Your task to perform on an android device: check google app version Image 0: 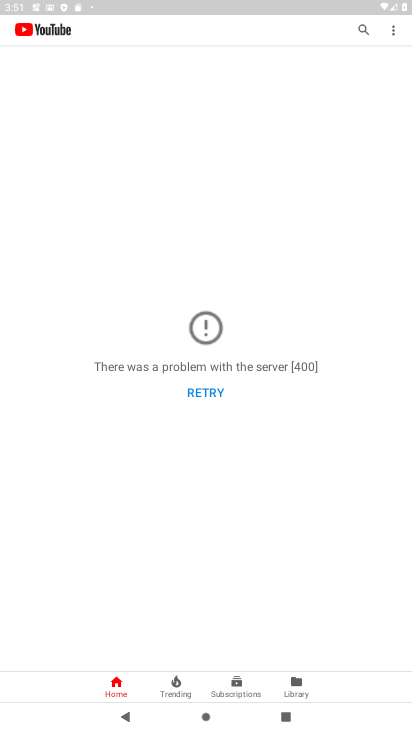
Step 0: press home button
Your task to perform on an android device: check google app version Image 1: 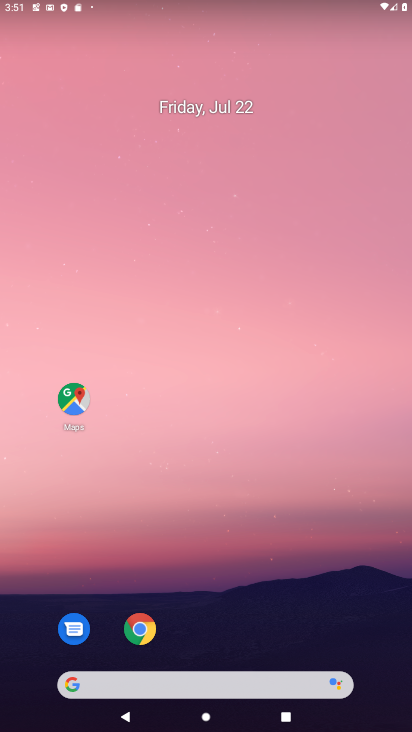
Step 1: drag from (309, 614) to (235, 173)
Your task to perform on an android device: check google app version Image 2: 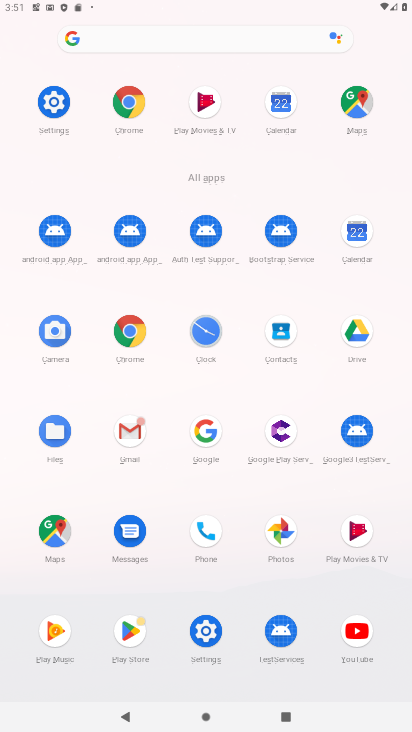
Step 2: click (209, 425)
Your task to perform on an android device: check google app version Image 3: 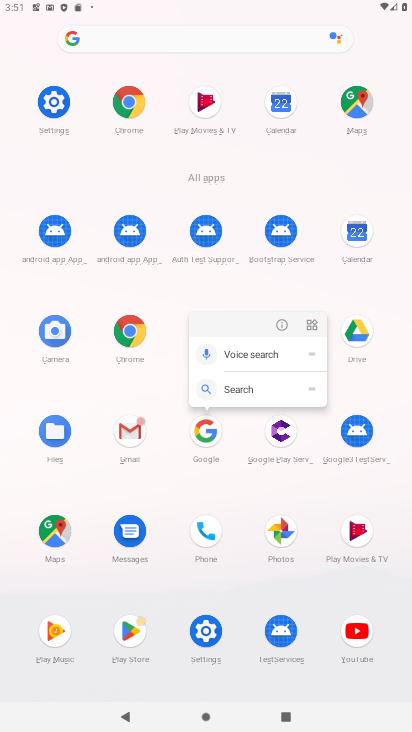
Step 3: click (275, 323)
Your task to perform on an android device: check google app version Image 4: 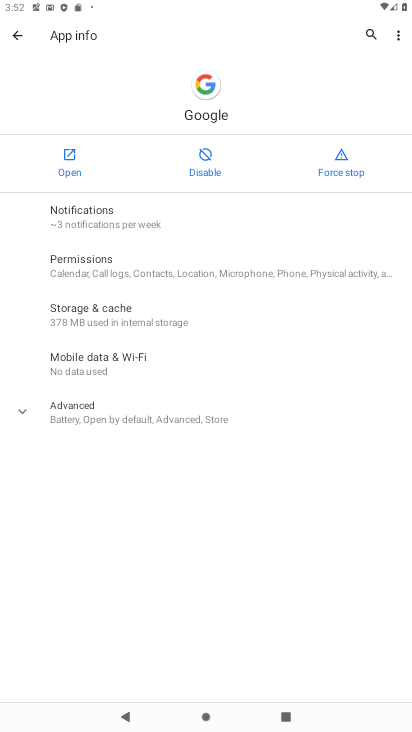
Step 4: click (70, 402)
Your task to perform on an android device: check google app version Image 5: 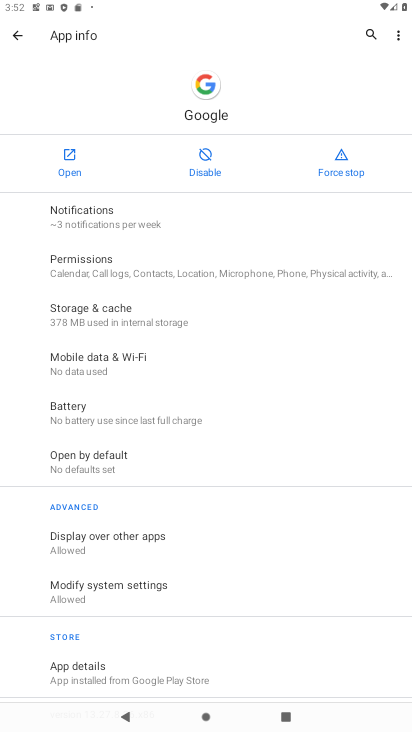
Step 5: task complete